Your task to perform on an android device: empty trash in the gmail app Image 0: 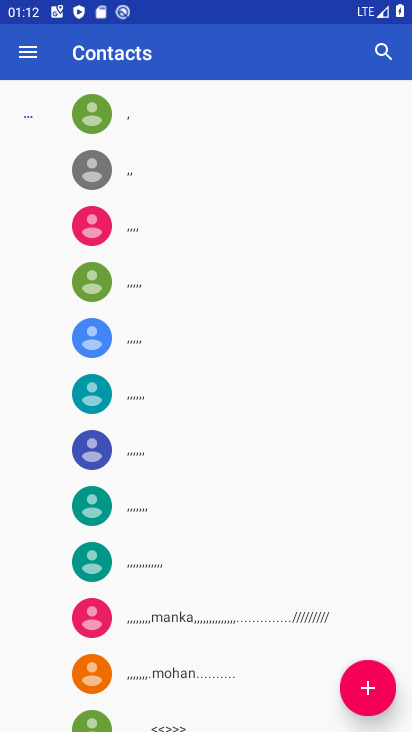
Step 0: press home button
Your task to perform on an android device: empty trash in the gmail app Image 1: 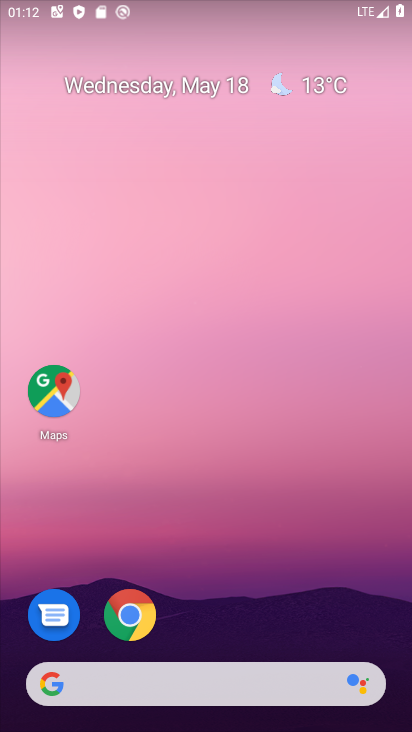
Step 1: drag from (147, 695) to (306, 159)
Your task to perform on an android device: empty trash in the gmail app Image 2: 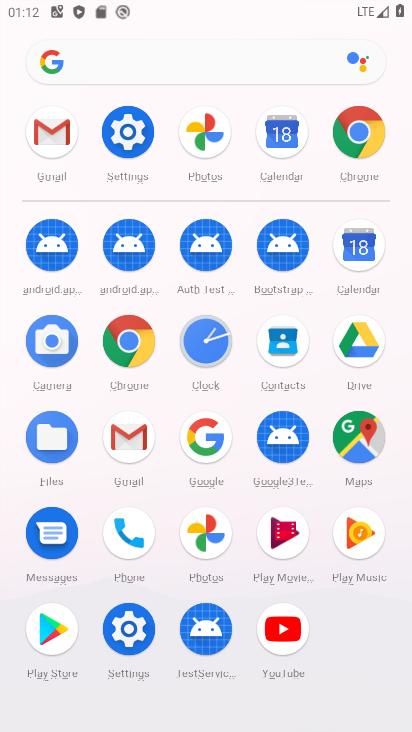
Step 2: click (50, 141)
Your task to perform on an android device: empty trash in the gmail app Image 3: 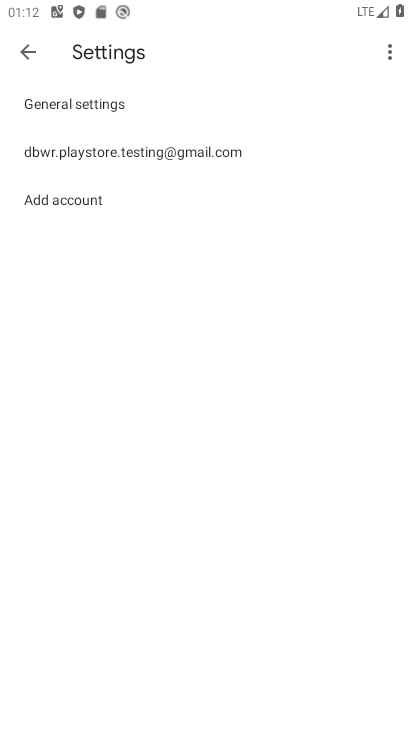
Step 3: click (25, 53)
Your task to perform on an android device: empty trash in the gmail app Image 4: 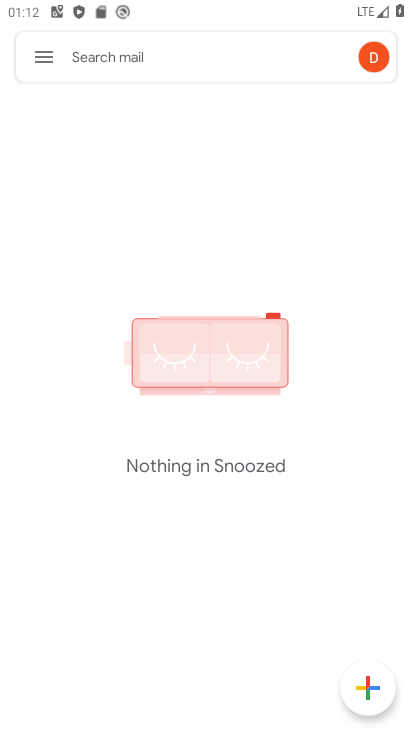
Step 4: click (40, 54)
Your task to perform on an android device: empty trash in the gmail app Image 5: 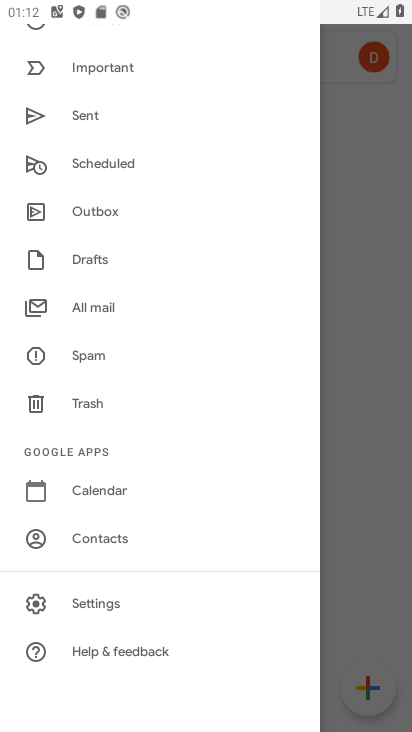
Step 5: click (89, 405)
Your task to perform on an android device: empty trash in the gmail app Image 6: 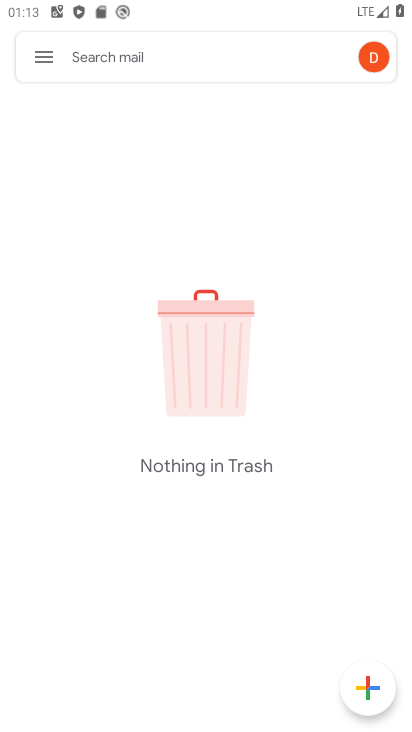
Step 6: task complete